Your task to perform on an android device: turn on priority inbox in the gmail app Image 0: 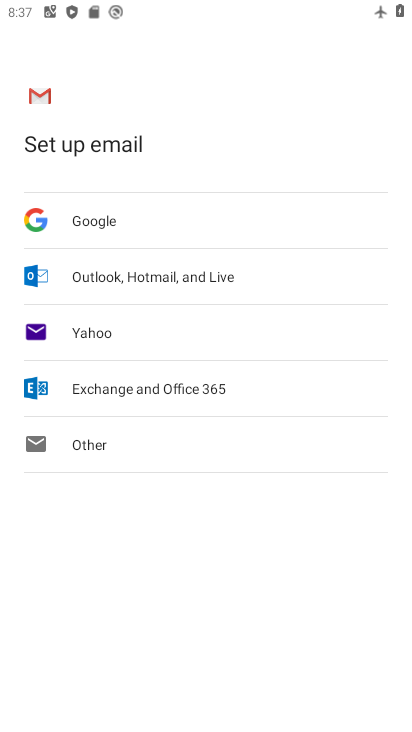
Step 0: press home button
Your task to perform on an android device: turn on priority inbox in the gmail app Image 1: 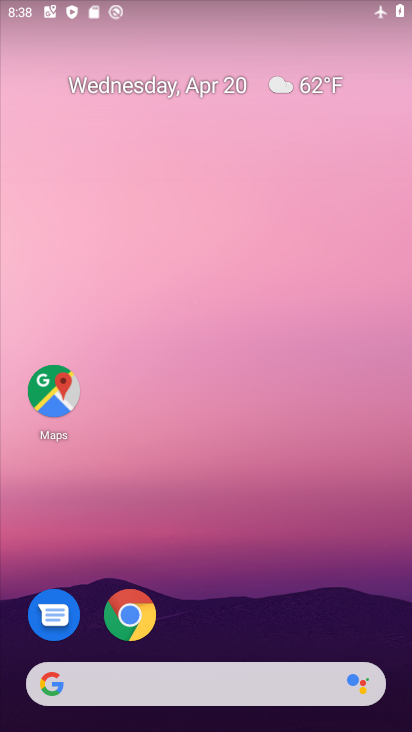
Step 1: drag from (157, 686) to (296, 209)
Your task to perform on an android device: turn on priority inbox in the gmail app Image 2: 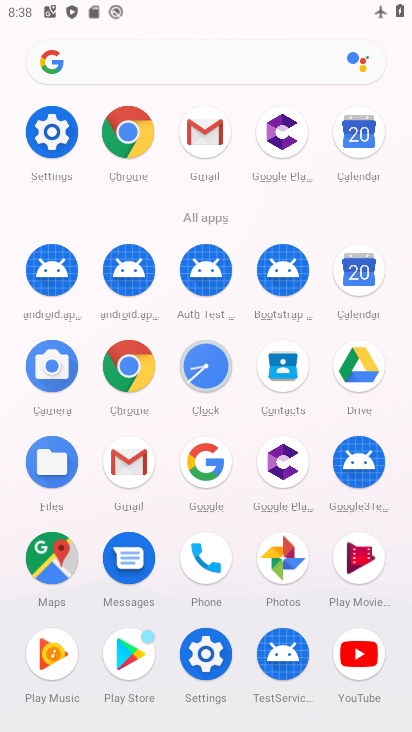
Step 2: click (197, 143)
Your task to perform on an android device: turn on priority inbox in the gmail app Image 3: 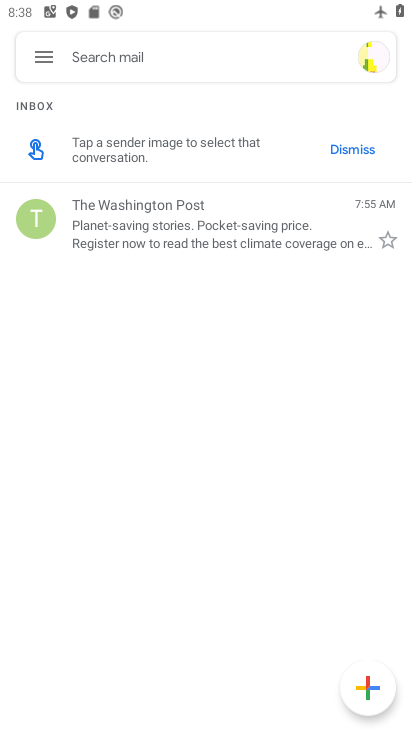
Step 3: click (41, 57)
Your task to perform on an android device: turn on priority inbox in the gmail app Image 4: 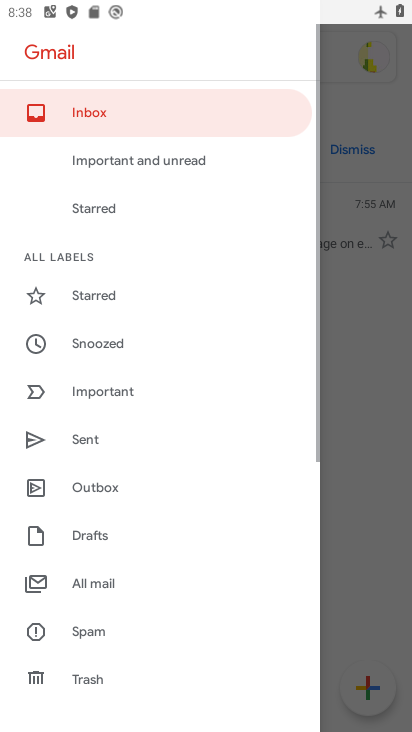
Step 4: drag from (136, 612) to (241, 138)
Your task to perform on an android device: turn on priority inbox in the gmail app Image 5: 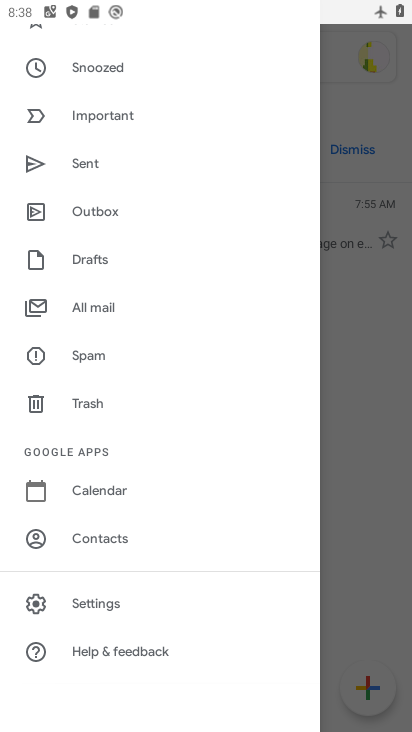
Step 5: click (113, 599)
Your task to perform on an android device: turn on priority inbox in the gmail app Image 6: 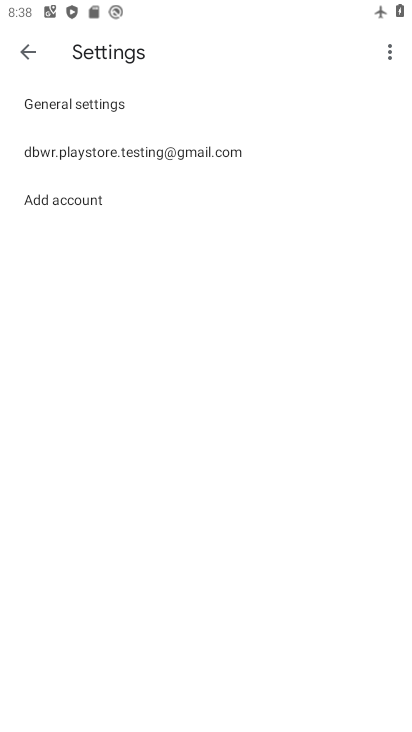
Step 6: click (187, 144)
Your task to perform on an android device: turn on priority inbox in the gmail app Image 7: 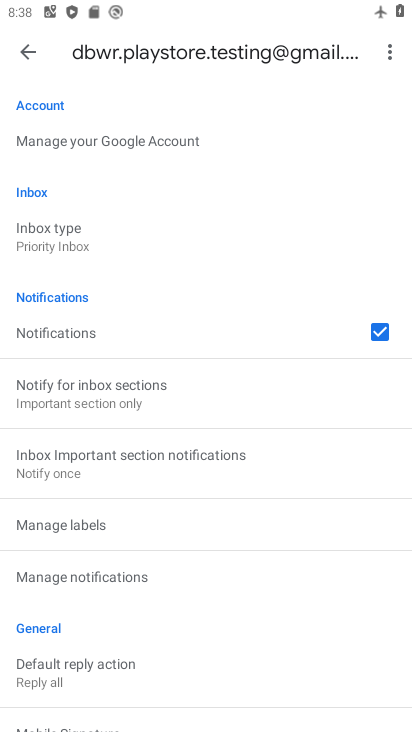
Step 7: click (62, 237)
Your task to perform on an android device: turn on priority inbox in the gmail app Image 8: 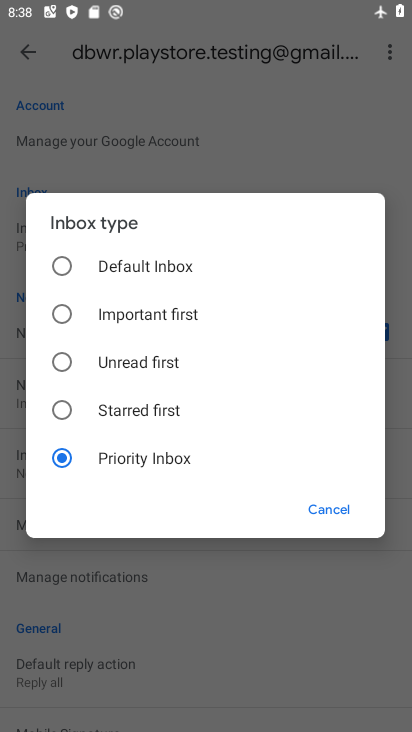
Step 8: task complete